Your task to perform on an android device: turn off location history Image 0: 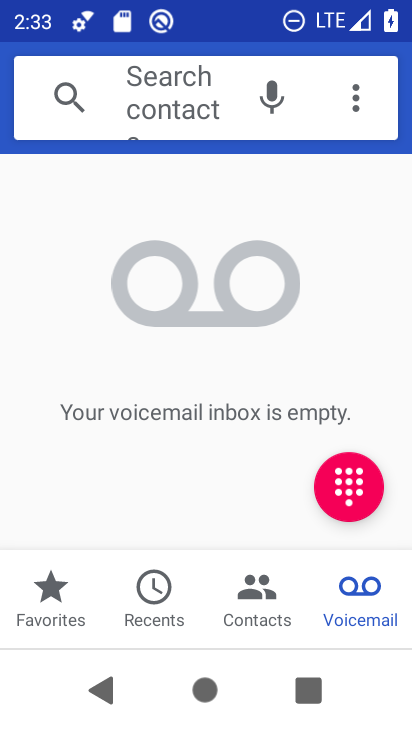
Step 0: press home button
Your task to perform on an android device: turn off location history Image 1: 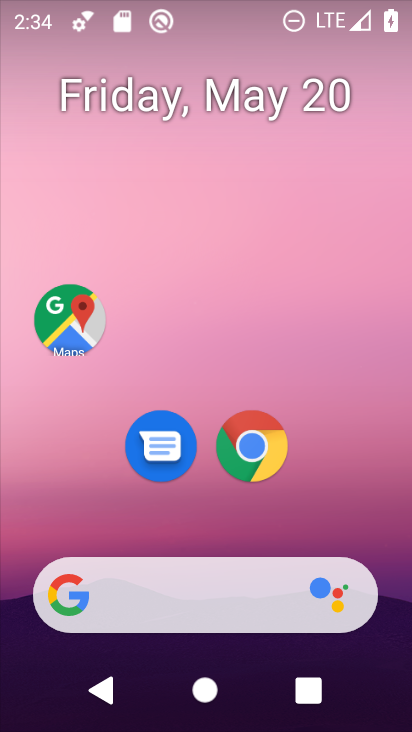
Step 1: click (74, 322)
Your task to perform on an android device: turn off location history Image 2: 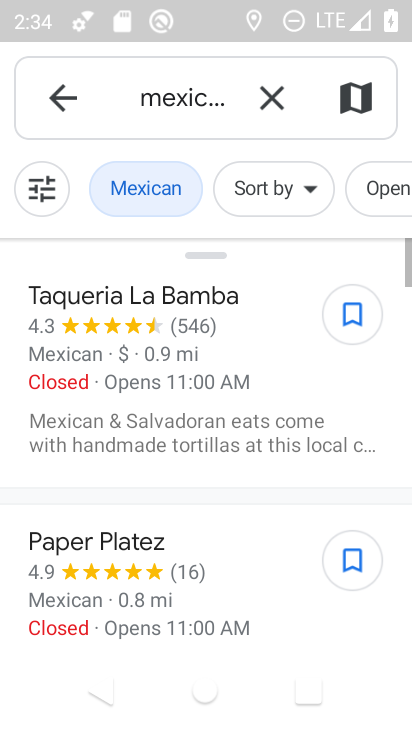
Step 2: click (271, 107)
Your task to perform on an android device: turn off location history Image 3: 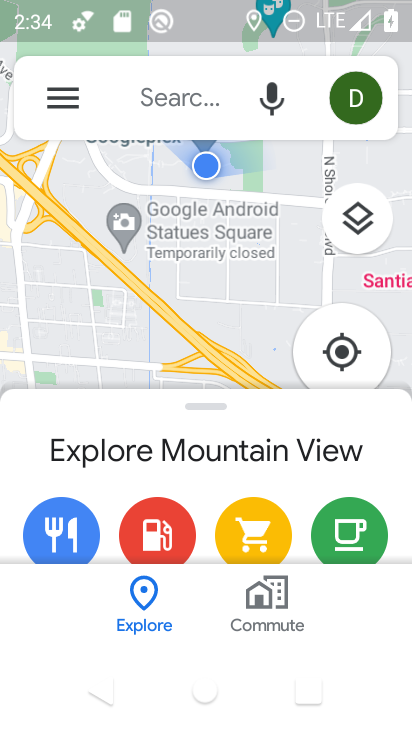
Step 3: click (56, 99)
Your task to perform on an android device: turn off location history Image 4: 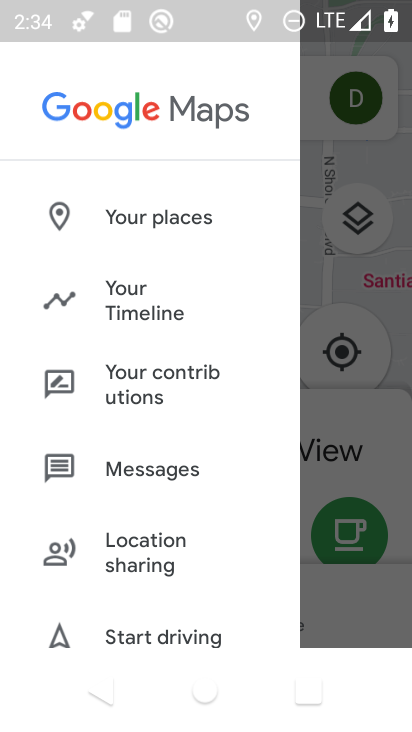
Step 4: click (136, 307)
Your task to perform on an android device: turn off location history Image 5: 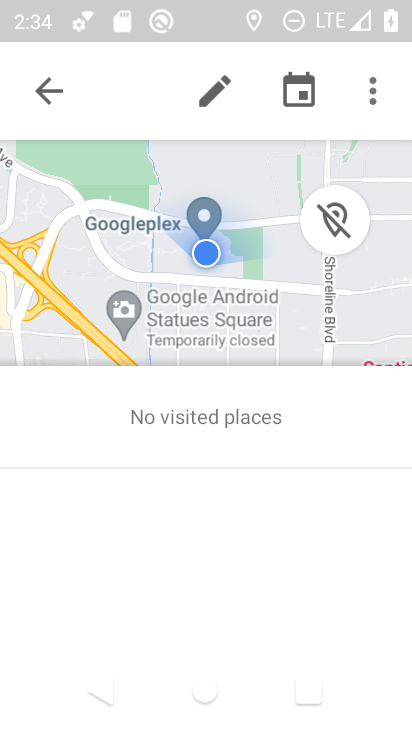
Step 5: click (373, 93)
Your task to perform on an android device: turn off location history Image 6: 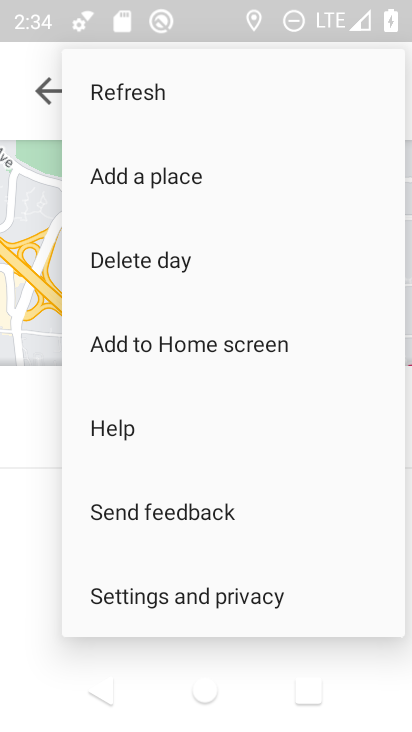
Step 6: click (170, 591)
Your task to perform on an android device: turn off location history Image 7: 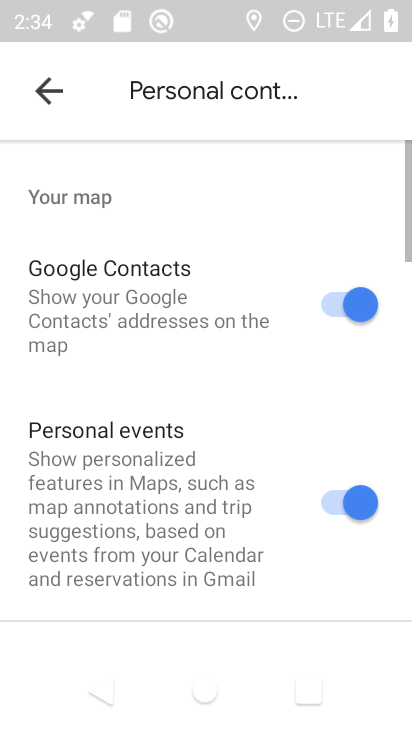
Step 7: drag from (169, 543) to (150, 152)
Your task to perform on an android device: turn off location history Image 8: 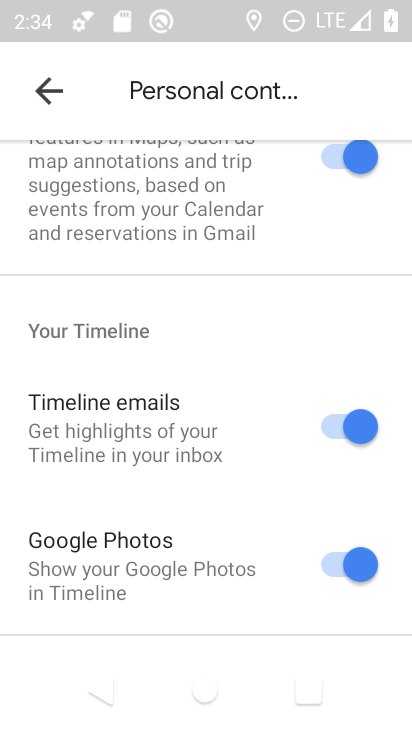
Step 8: drag from (118, 457) to (137, 120)
Your task to perform on an android device: turn off location history Image 9: 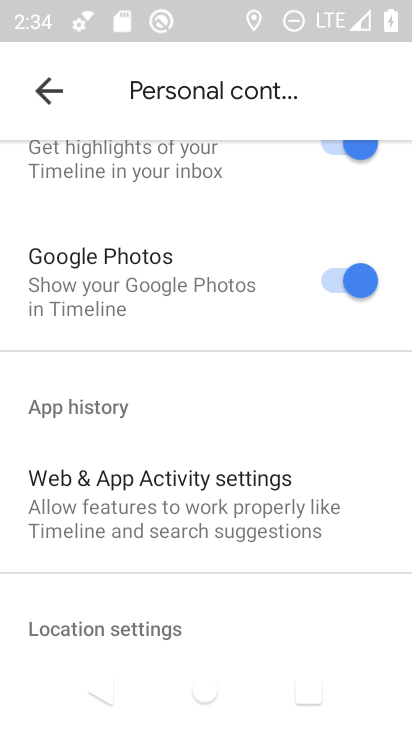
Step 9: drag from (90, 403) to (116, 136)
Your task to perform on an android device: turn off location history Image 10: 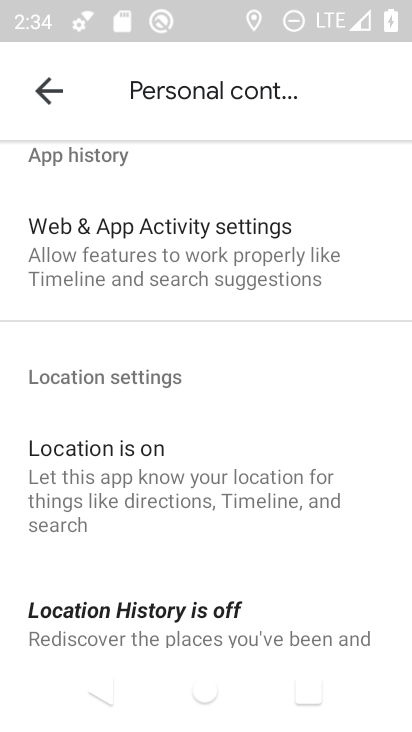
Step 10: drag from (104, 418) to (122, 226)
Your task to perform on an android device: turn off location history Image 11: 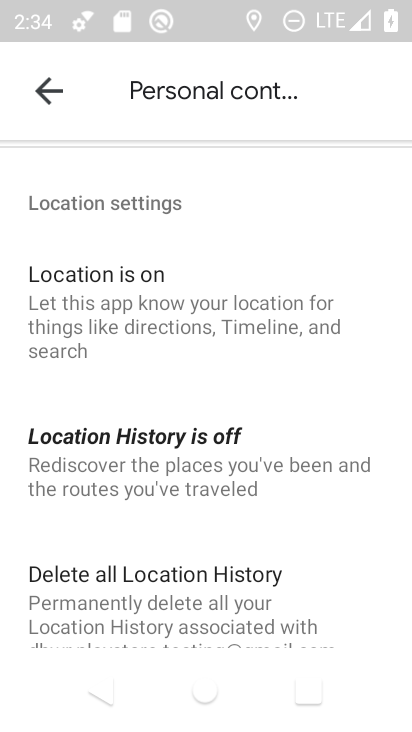
Step 11: click (96, 449)
Your task to perform on an android device: turn off location history Image 12: 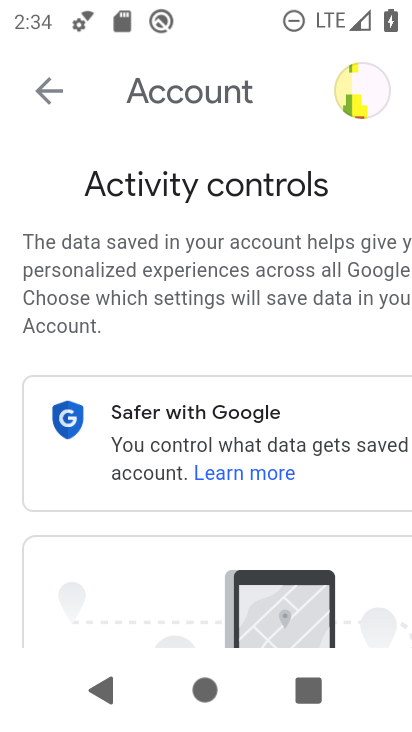
Step 12: task complete